Your task to perform on an android device: turn on priority inbox in the gmail app Image 0: 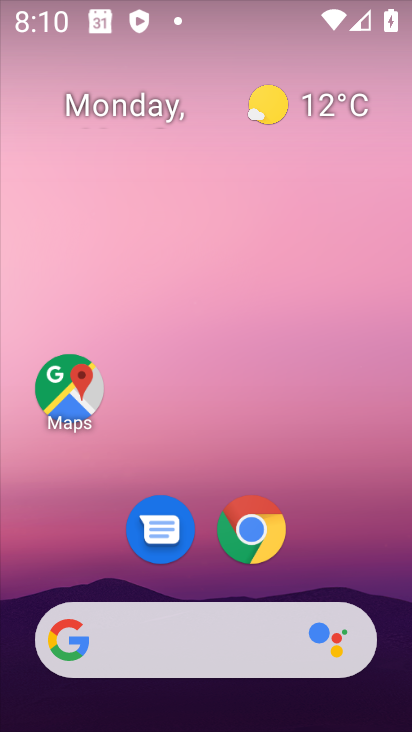
Step 0: drag from (158, 645) to (138, 119)
Your task to perform on an android device: turn on priority inbox in the gmail app Image 1: 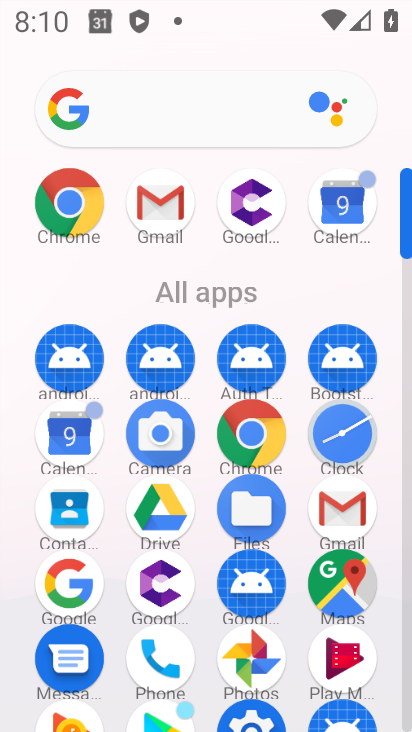
Step 1: click (323, 506)
Your task to perform on an android device: turn on priority inbox in the gmail app Image 2: 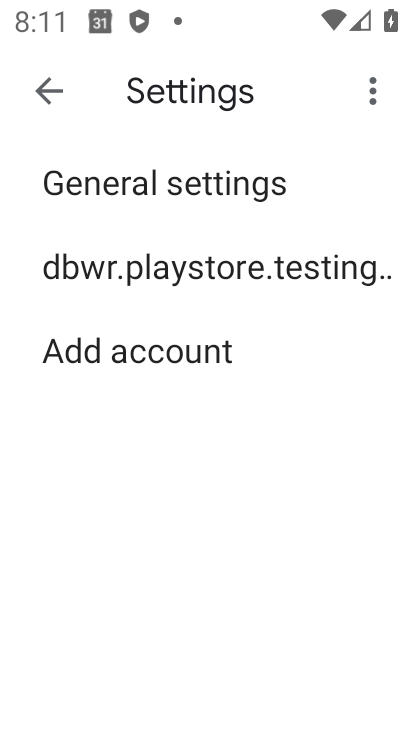
Step 2: click (248, 283)
Your task to perform on an android device: turn on priority inbox in the gmail app Image 3: 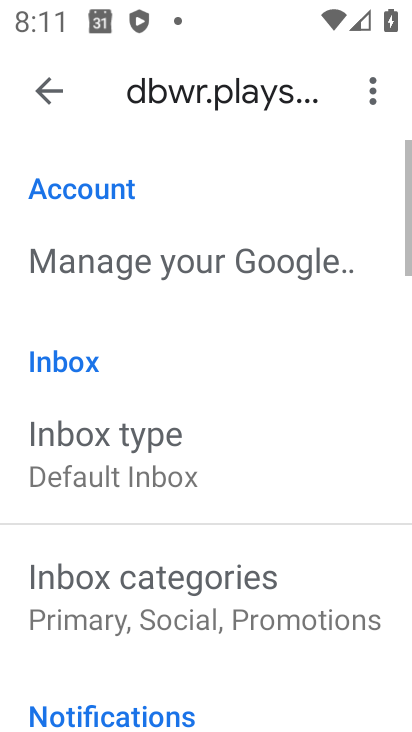
Step 3: click (126, 458)
Your task to perform on an android device: turn on priority inbox in the gmail app Image 4: 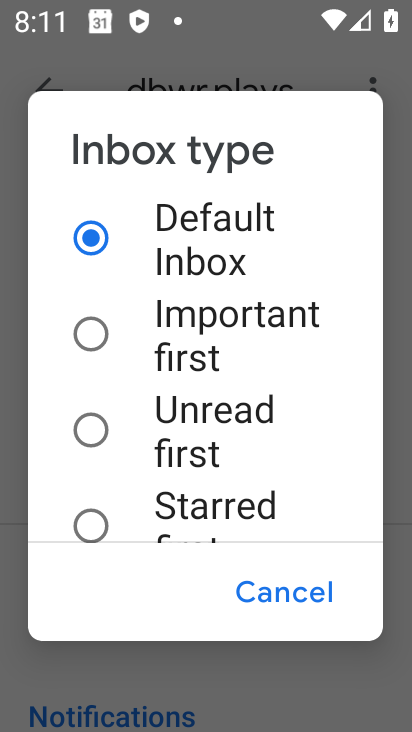
Step 4: drag from (195, 473) to (207, 130)
Your task to perform on an android device: turn on priority inbox in the gmail app Image 5: 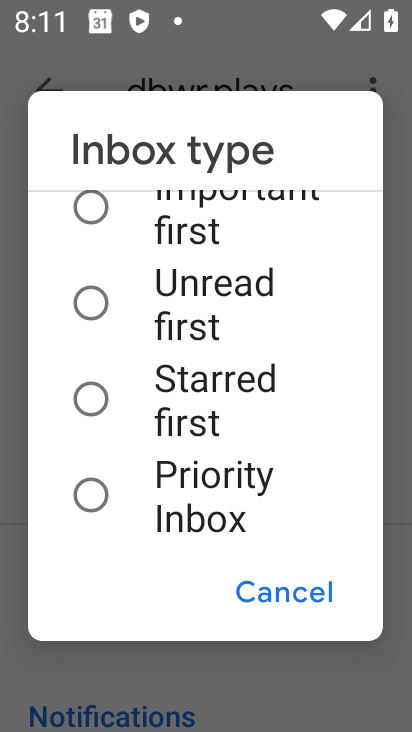
Step 5: click (88, 496)
Your task to perform on an android device: turn on priority inbox in the gmail app Image 6: 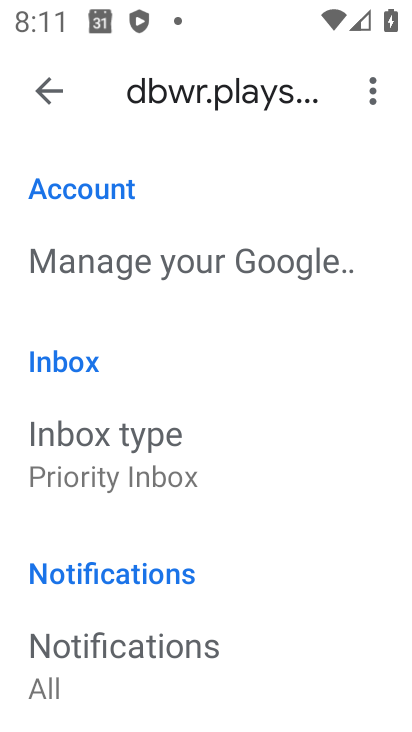
Step 6: task complete